Your task to perform on an android device: Search for a new blush Image 0: 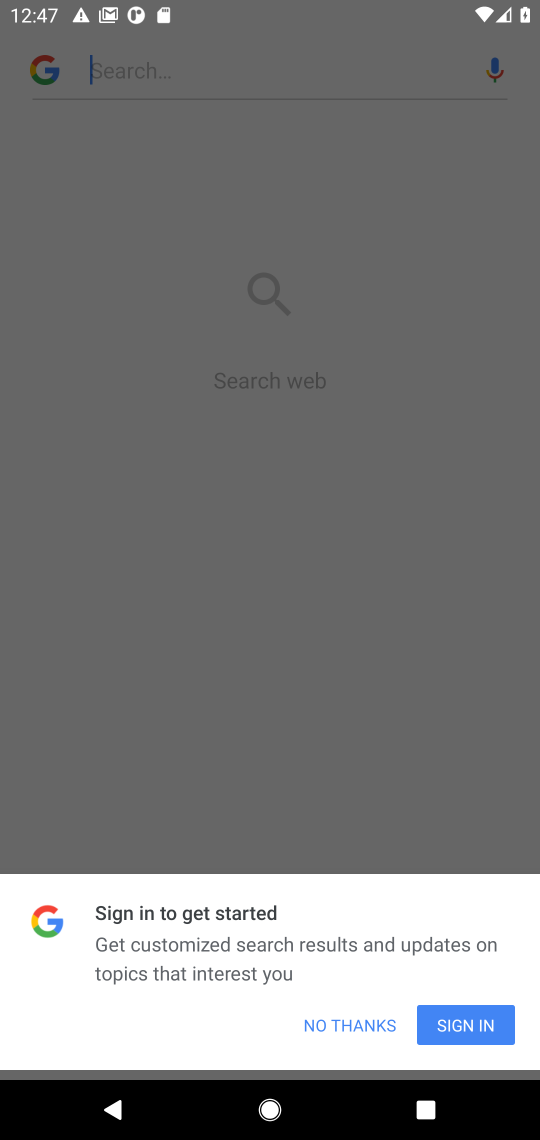
Step 0: click (339, 1020)
Your task to perform on an android device: Search for a new blush Image 1: 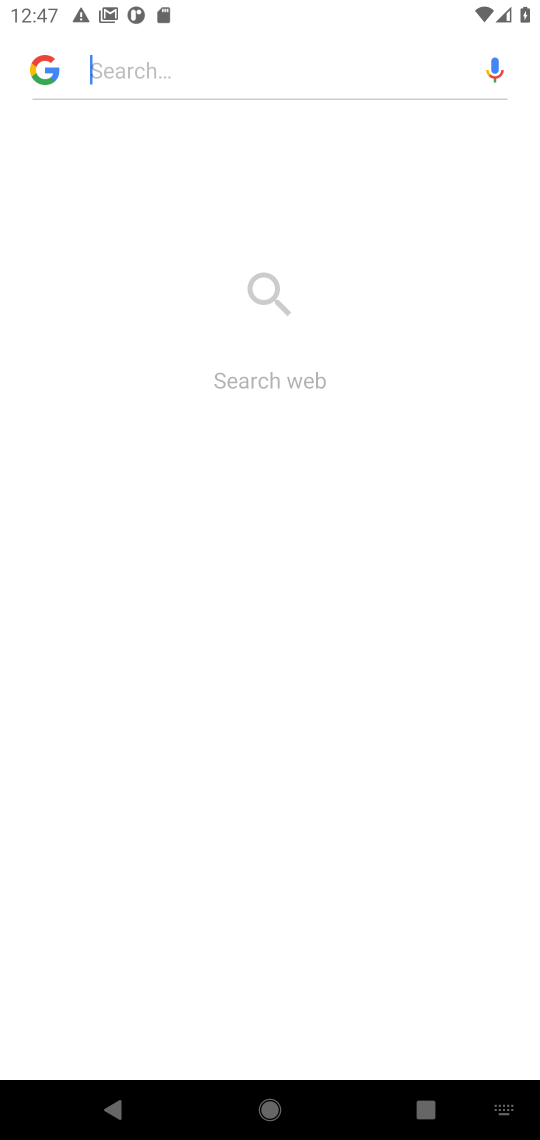
Step 1: click (227, 71)
Your task to perform on an android device: Search for a new blush Image 2: 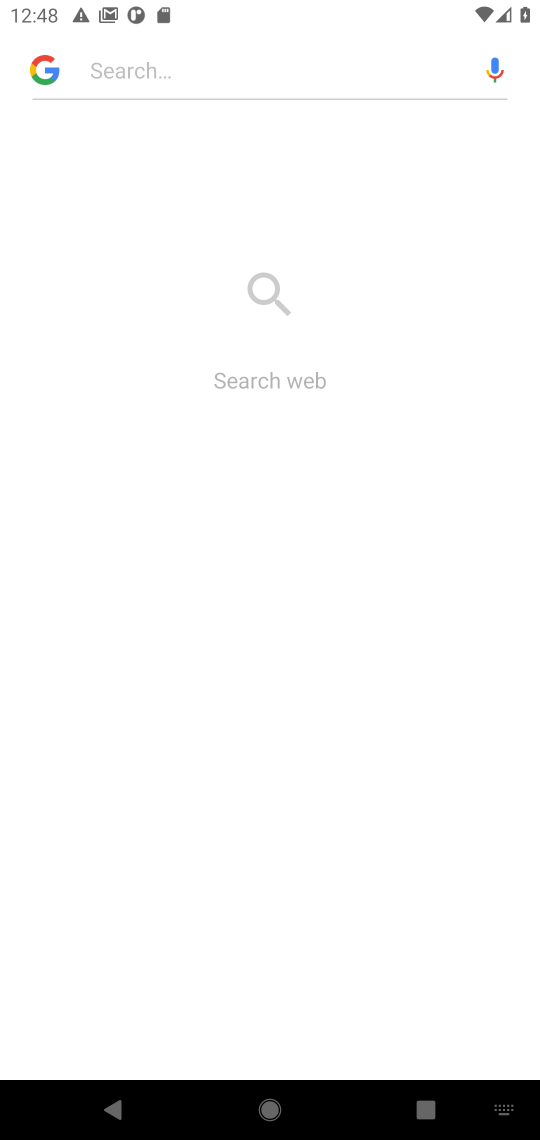
Step 2: type " new blush"
Your task to perform on an android device: Search for a new blush Image 3: 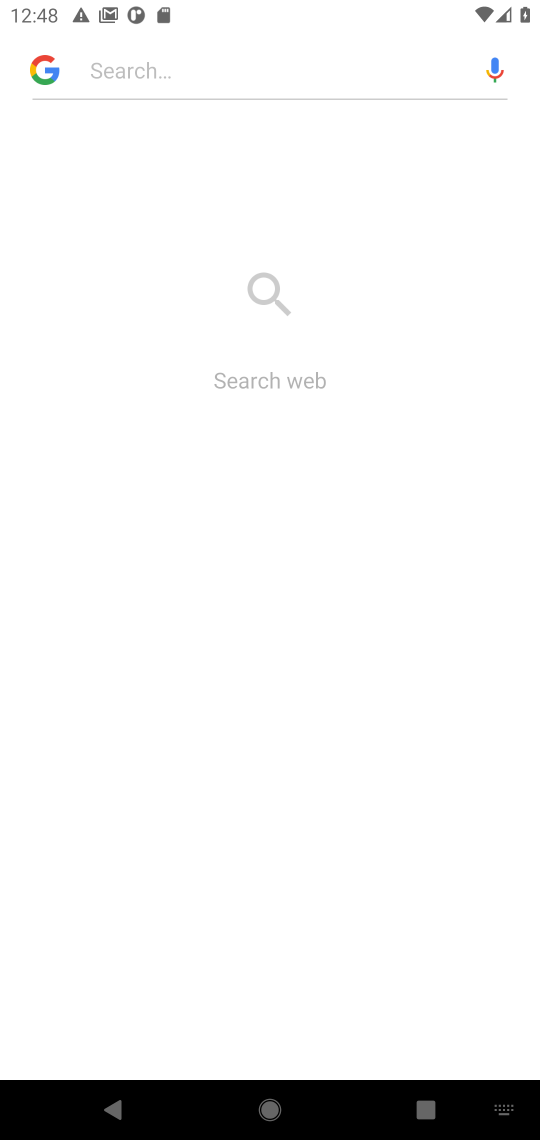
Step 3: click (162, 64)
Your task to perform on an android device: Search for a new blush Image 4: 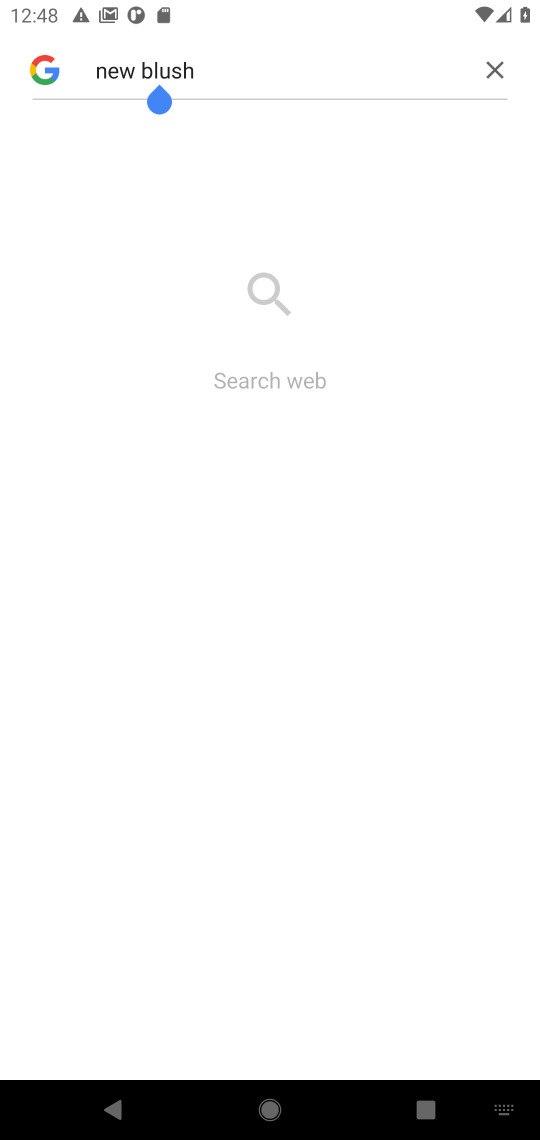
Step 4: press enter
Your task to perform on an android device: Search for a new blush Image 5: 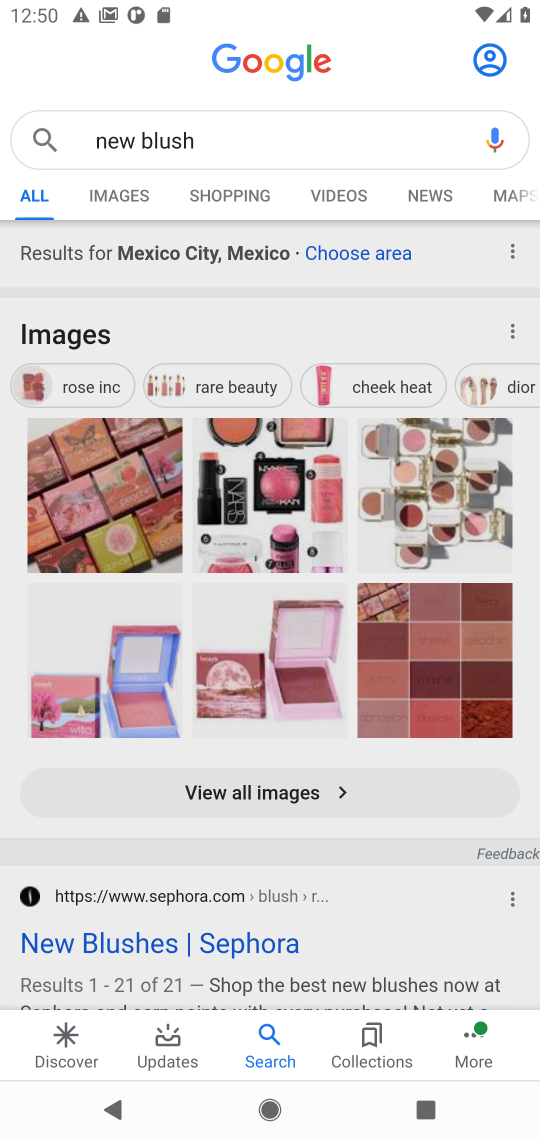
Step 5: task complete